Your task to perform on an android device: What's the weather going to be tomorrow? Image 0: 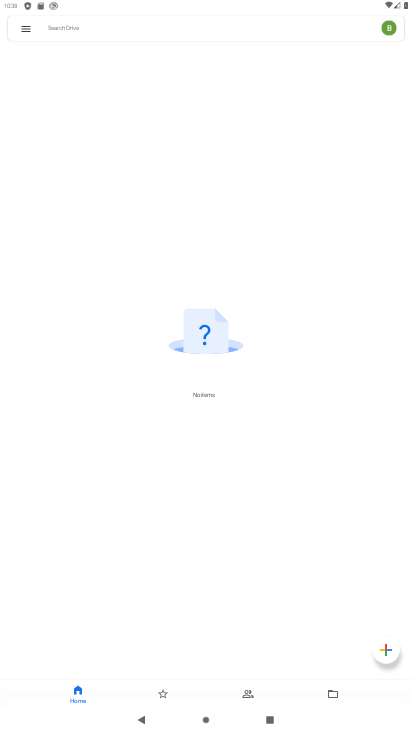
Step 0: press home button
Your task to perform on an android device: What's the weather going to be tomorrow? Image 1: 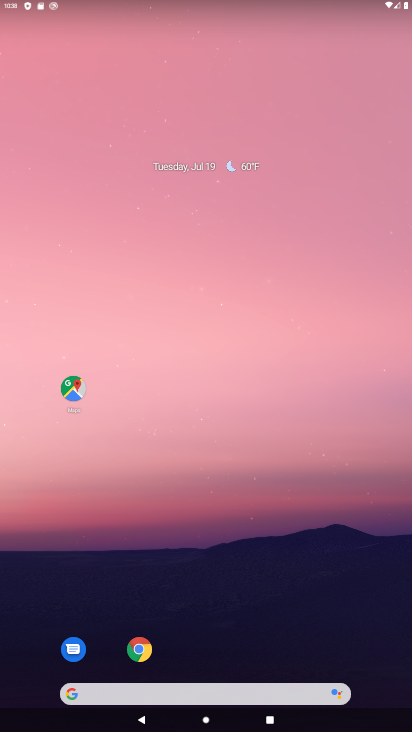
Step 1: click (138, 648)
Your task to perform on an android device: What's the weather going to be tomorrow? Image 2: 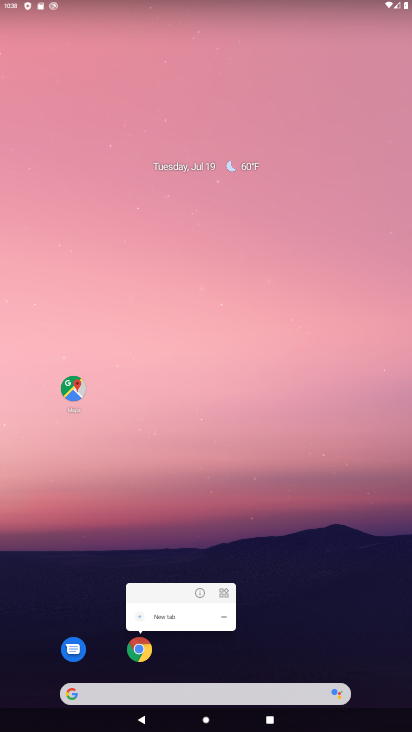
Step 2: click (149, 632)
Your task to perform on an android device: What's the weather going to be tomorrow? Image 3: 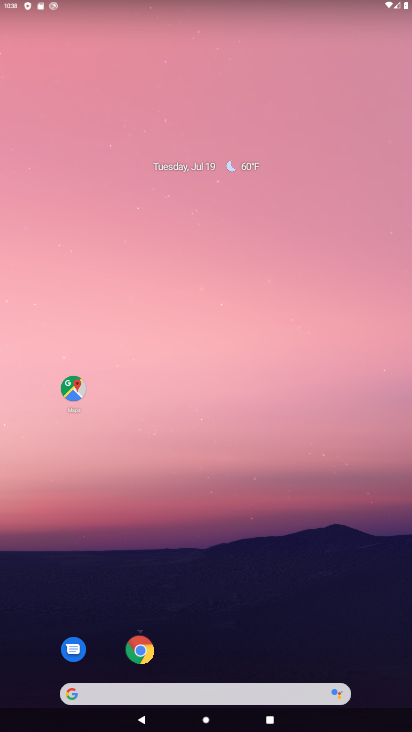
Step 3: click (148, 647)
Your task to perform on an android device: What's the weather going to be tomorrow? Image 4: 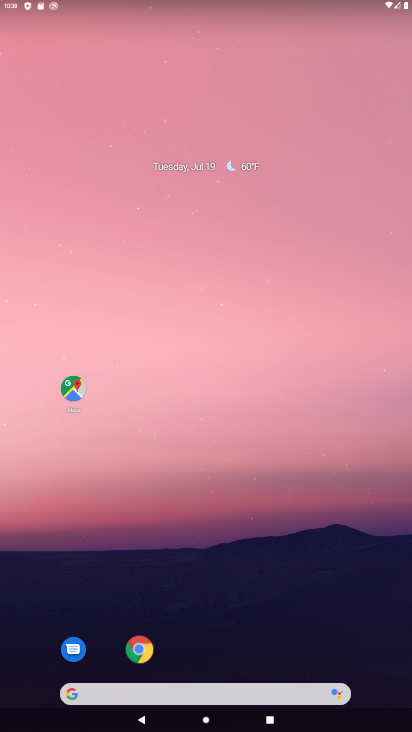
Step 4: click (135, 652)
Your task to perform on an android device: What's the weather going to be tomorrow? Image 5: 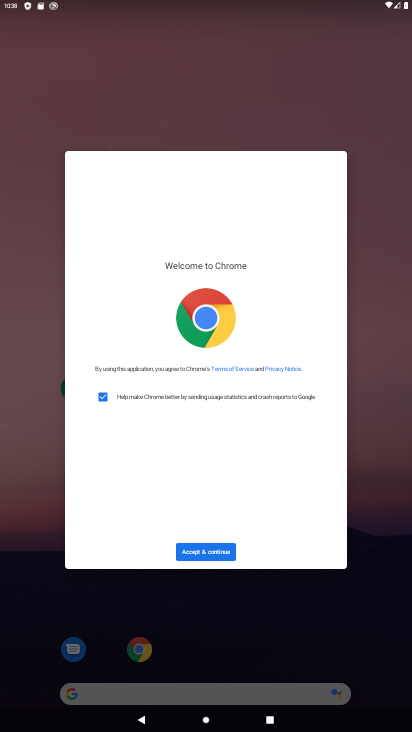
Step 5: click (217, 548)
Your task to perform on an android device: What's the weather going to be tomorrow? Image 6: 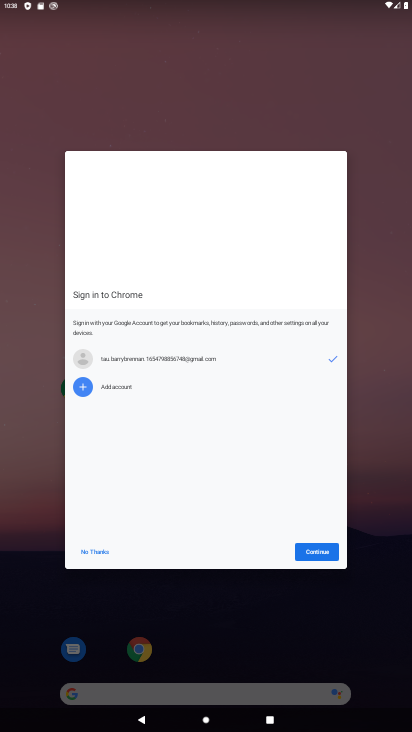
Step 6: click (320, 559)
Your task to perform on an android device: What's the weather going to be tomorrow? Image 7: 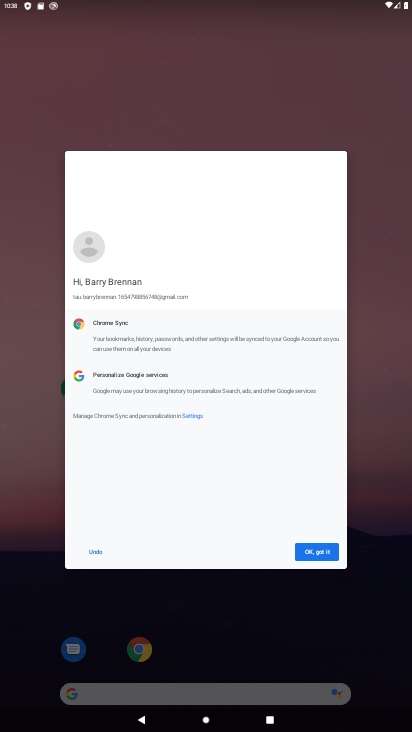
Step 7: click (323, 557)
Your task to perform on an android device: What's the weather going to be tomorrow? Image 8: 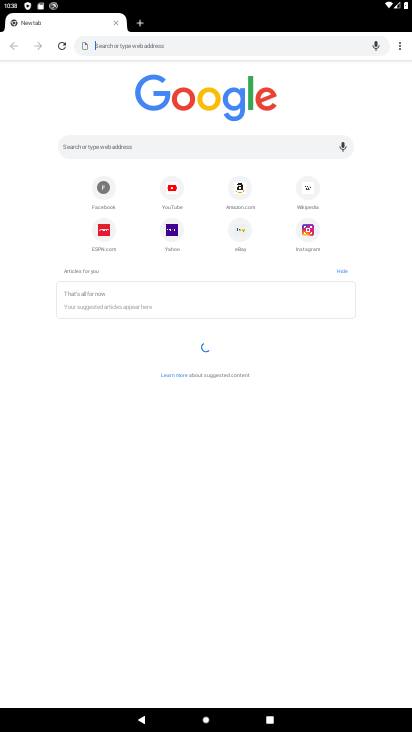
Step 8: click (108, 150)
Your task to perform on an android device: What's the weather going to be tomorrow? Image 9: 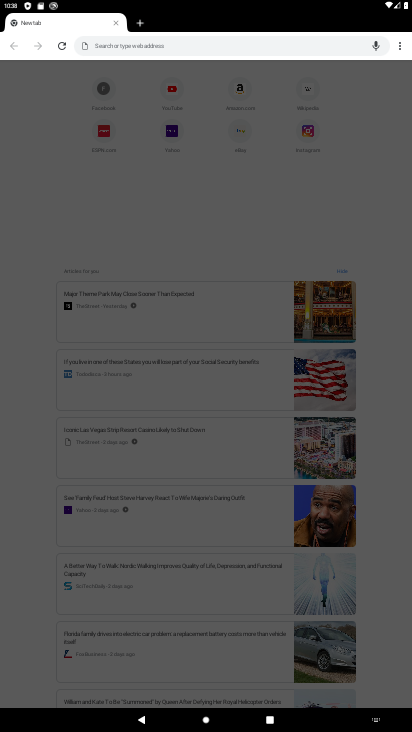
Step 9: type "What's the weather going to be tomorrow"
Your task to perform on an android device: What's the weather going to be tomorrow? Image 10: 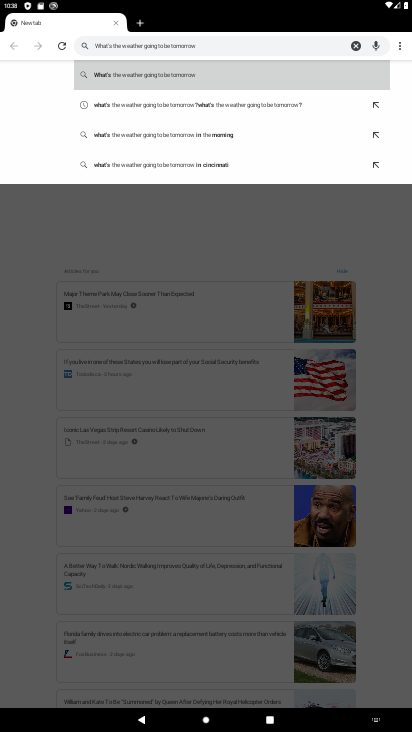
Step 10: click (251, 74)
Your task to perform on an android device: What's the weather going to be tomorrow? Image 11: 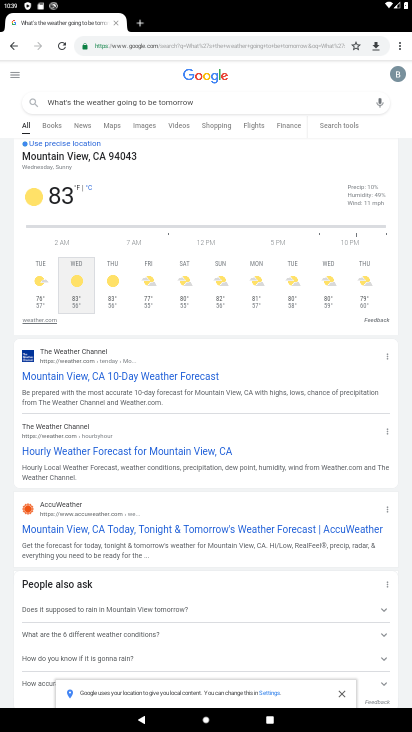
Step 11: task complete